Your task to perform on an android device: Open Youtube and go to the subscriptions tab Image 0: 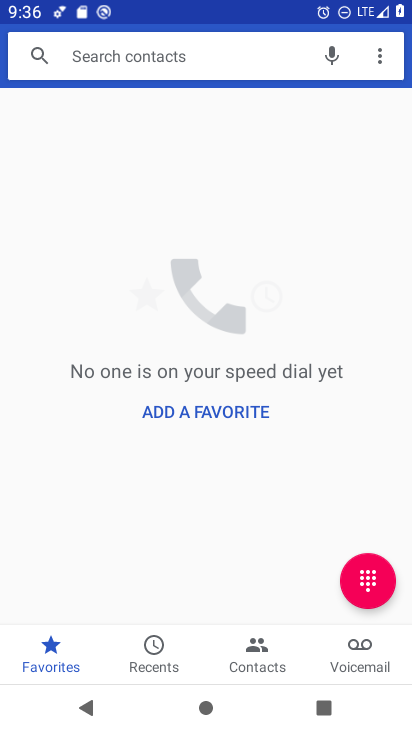
Step 0: press home button
Your task to perform on an android device: Open Youtube and go to the subscriptions tab Image 1: 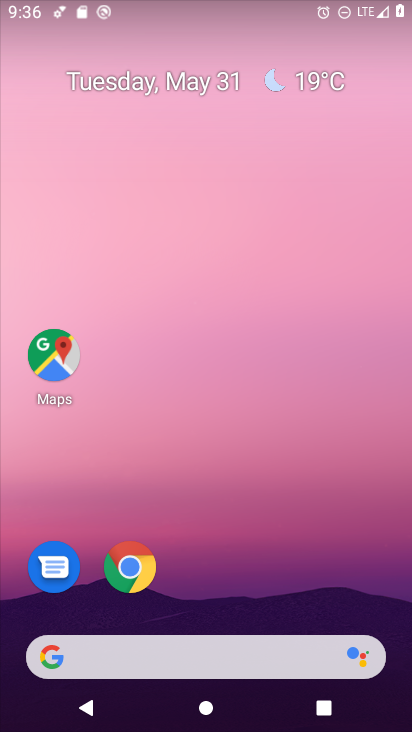
Step 1: drag from (184, 635) to (231, 188)
Your task to perform on an android device: Open Youtube and go to the subscriptions tab Image 2: 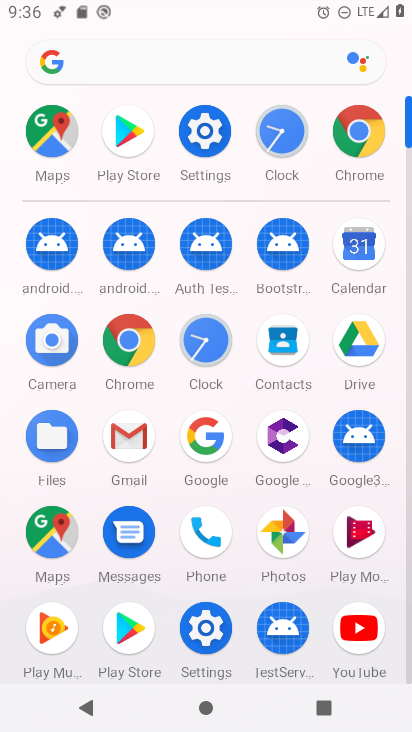
Step 2: click (351, 631)
Your task to perform on an android device: Open Youtube and go to the subscriptions tab Image 3: 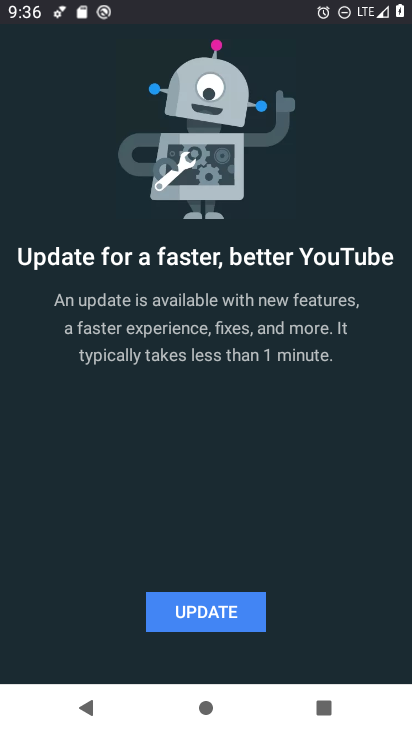
Step 3: click (191, 615)
Your task to perform on an android device: Open Youtube and go to the subscriptions tab Image 4: 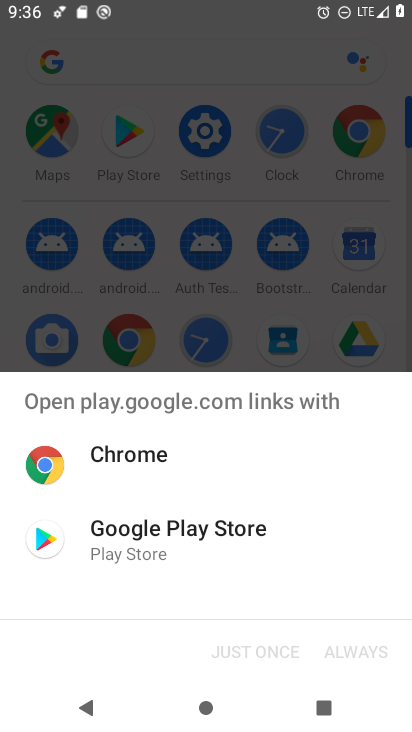
Step 4: click (211, 551)
Your task to perform on an android device: Open Youtube and go to the subscriptions tab Image 5: 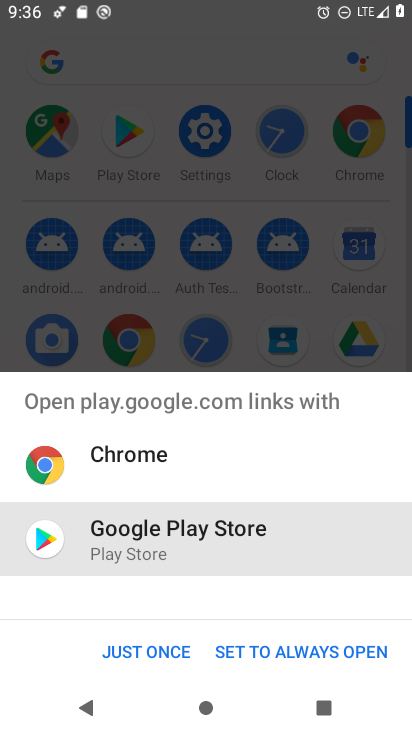
Step 5: click (352, 652)
Your task to perform on an android device: Open Youtube and go to the subscriptions tab Image 6: 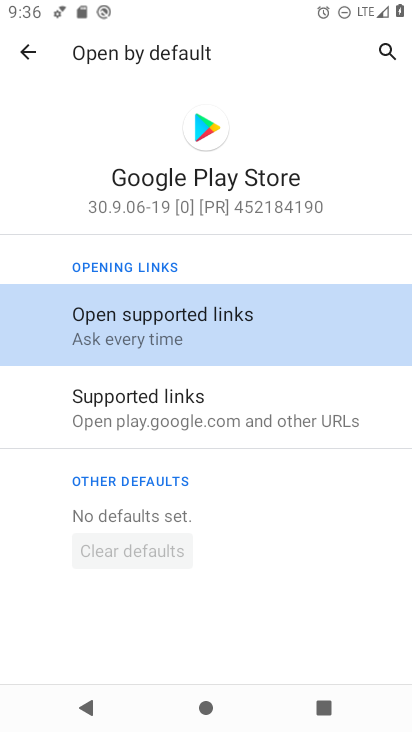
Step 6: click (121, 202)
Your task to perform on an android device: Open Youtube and go to the subscriptions tab Image 7: 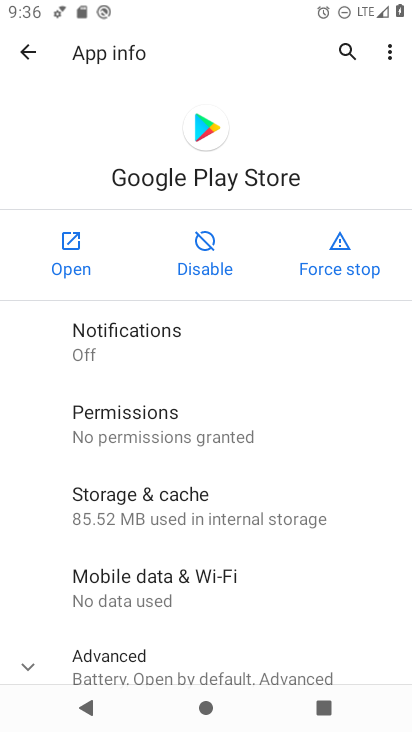
Step 7: click (81, 238)
Your task to perform on an android device: Open Youtube and go to the subscriptions tab Image 8: 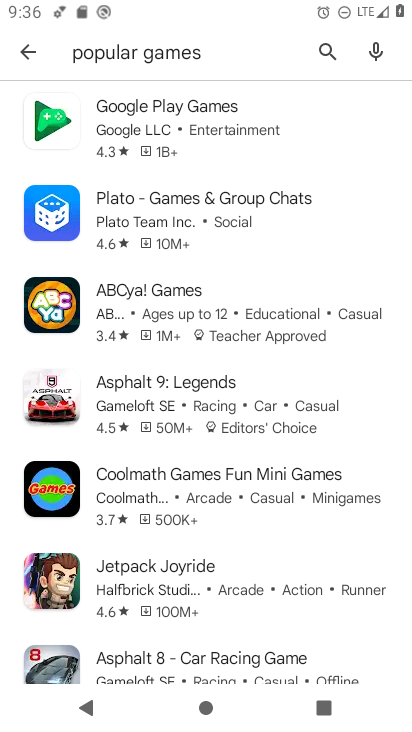
Step 8: click (324, 49)
Your task to perform on an android device: Open Youtube and go to the subscriptions tab Image 9: 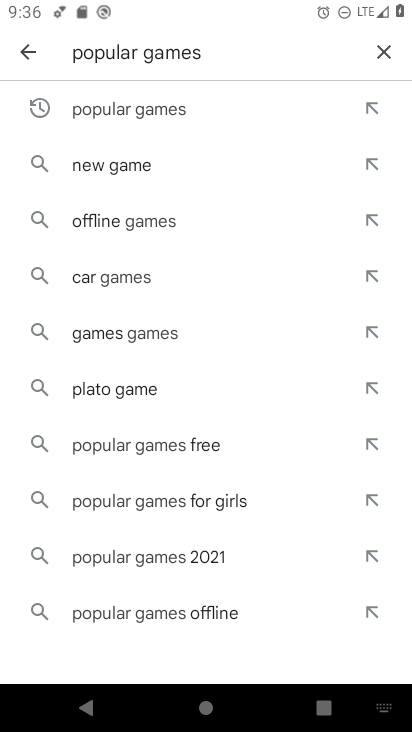
Step 9: click (375, 58)
Your task to perform on an android device: Open Youtube and go to the subscriptions tab Image 10: 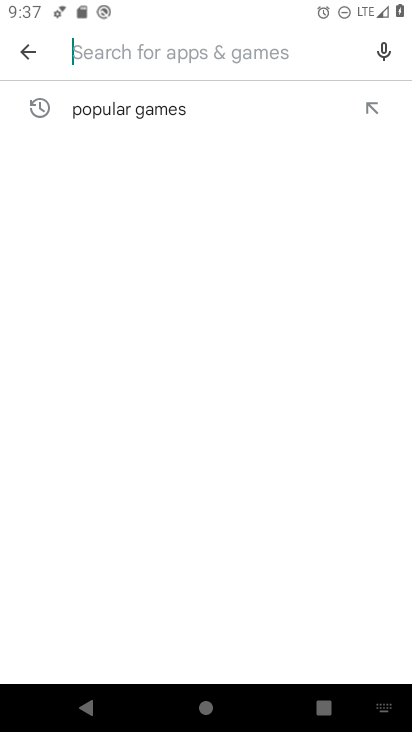
Step 10: type "youtube"
Your task to perform on an android device: Open Youtube and go to the subscriptions tab Image 11: 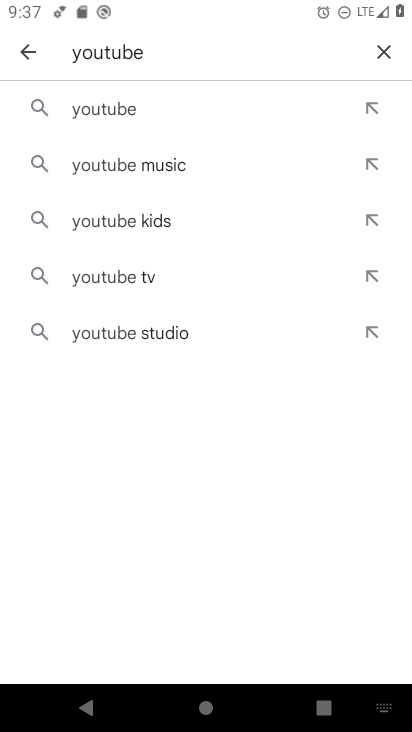
Step 11: click (132, 104)
Your task to perform on an android device: Open Youtube and go to the subscriptions tab Image 12: 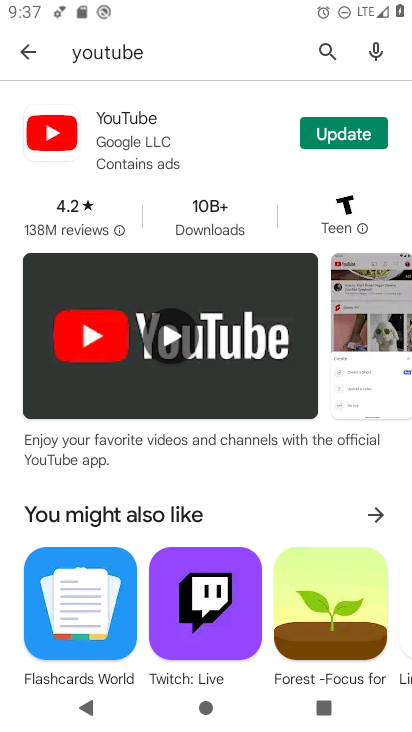
Step 12: click (357, 126)
Your task to perform on an android device: Open Youtube and go to the subscriptions tab Image 13: 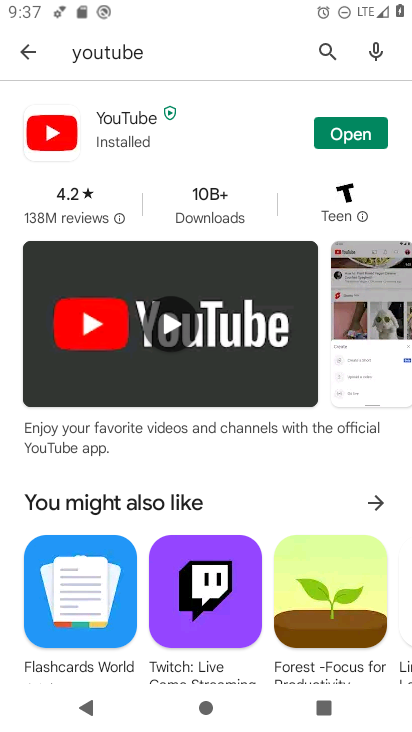
Step 13: click (354, 135)
Your task to perform on an android device: Open Youtube and go to the subscriptions tab Image 14: 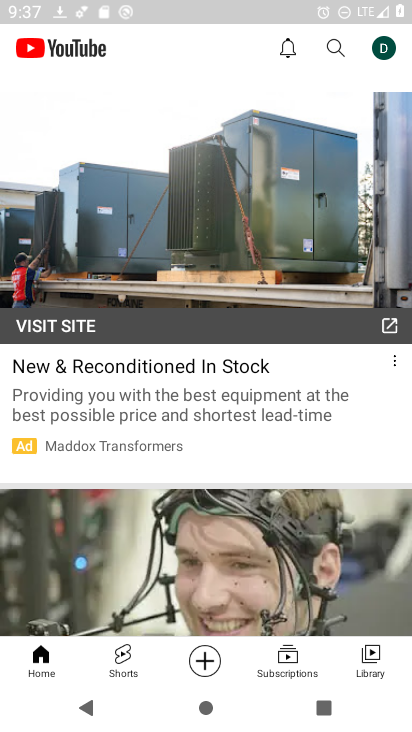
Step 14: click (281, 660)
Your task to perform on an android device: Open Youtube and go to the subscriptions tab Image 15: 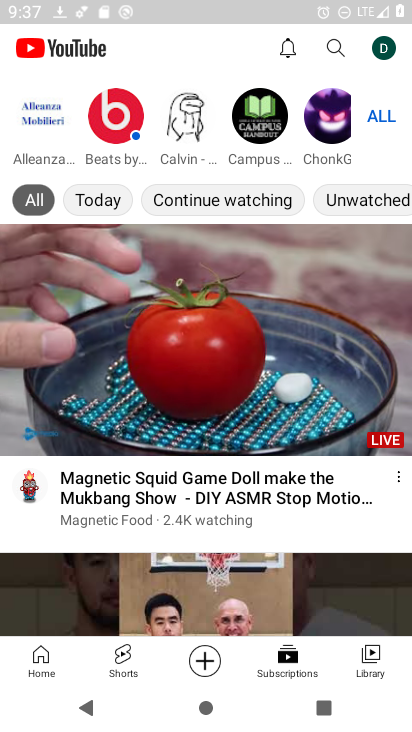
Step 15: task complete